Your task to perform on an android device: refresh tabs in the chrome app Image 0: 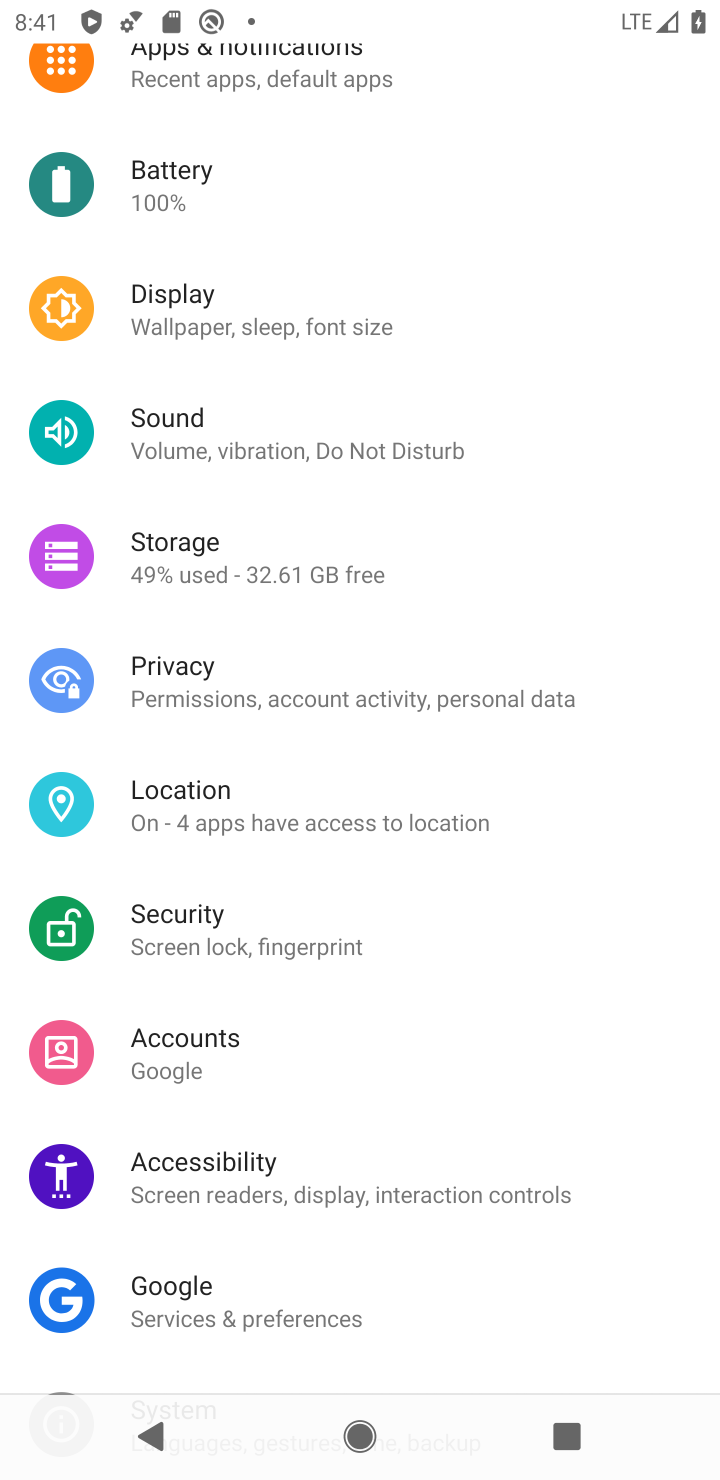
Step 0: press home button
Your task to perform on an android device: refresh tabs in the chrome app Image 1: 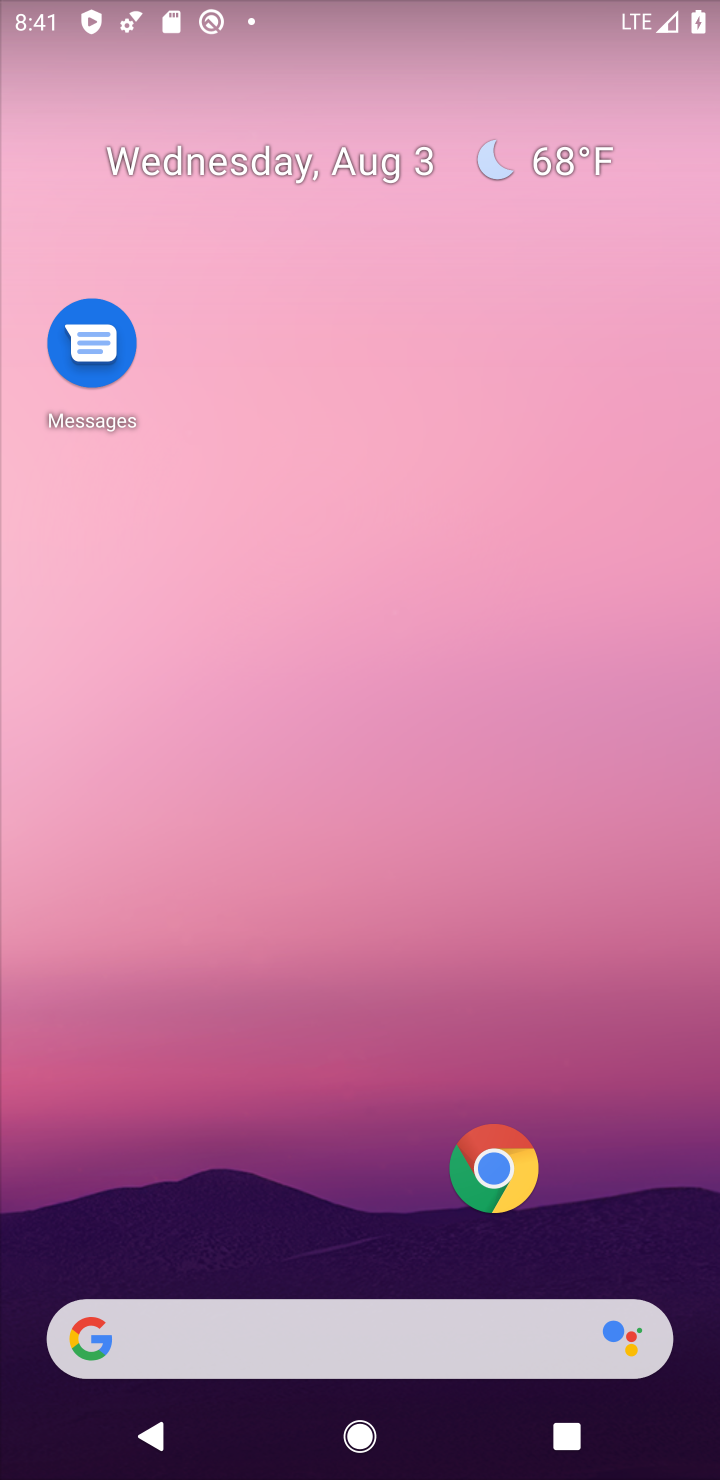
Step 1: drag from (347, 1229) to (341, 141)
Your task to perform on an android device: refresh tabs in the chrome app Image 2: 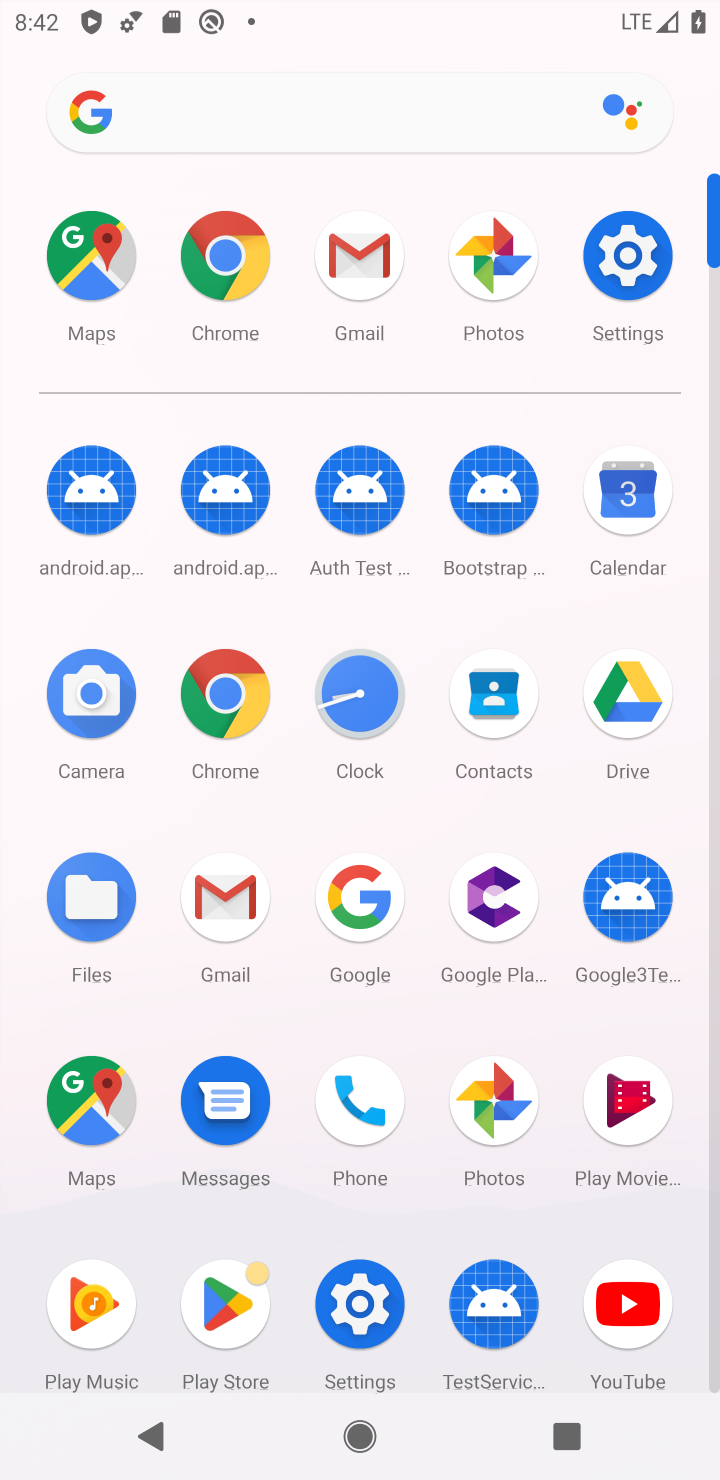
Step 2: click (235, 718)
Your task to perform on an android device: refresh tabs in the chrome app Image 3: 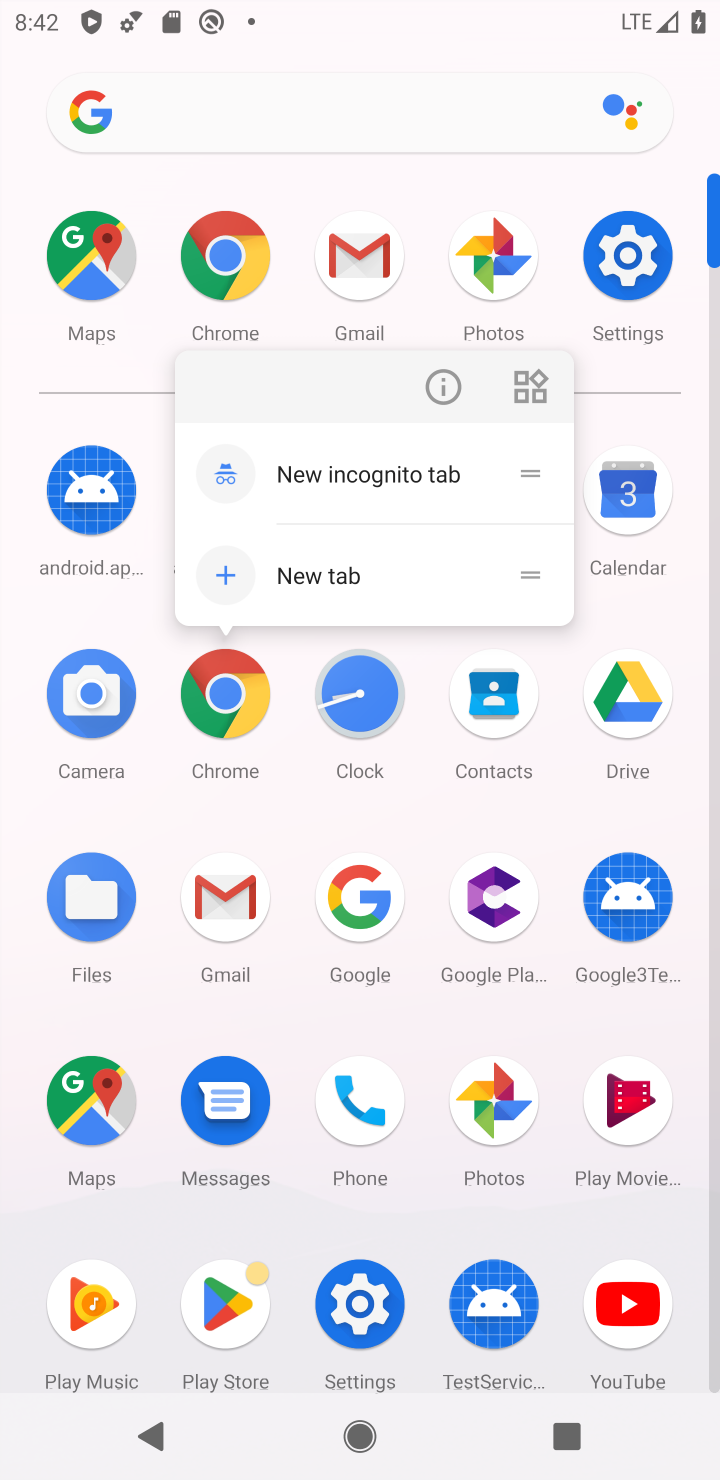
Step 3: click (241, 699)
Your task to perform on an android device: refresh tabs in the chrome app Image 4: 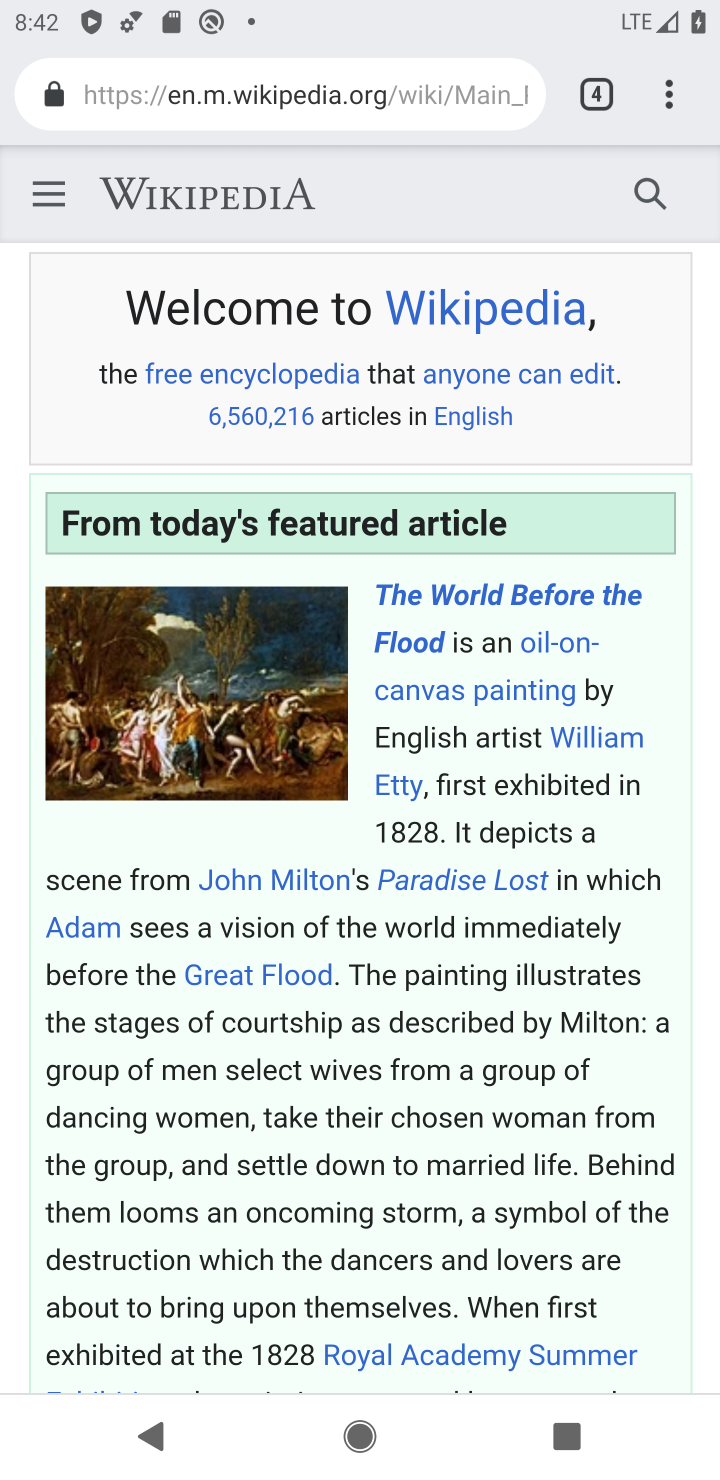
Step 4: click (657, 108)
Your task to perform on an android device: refresh tabs in the chrome app Image 5: 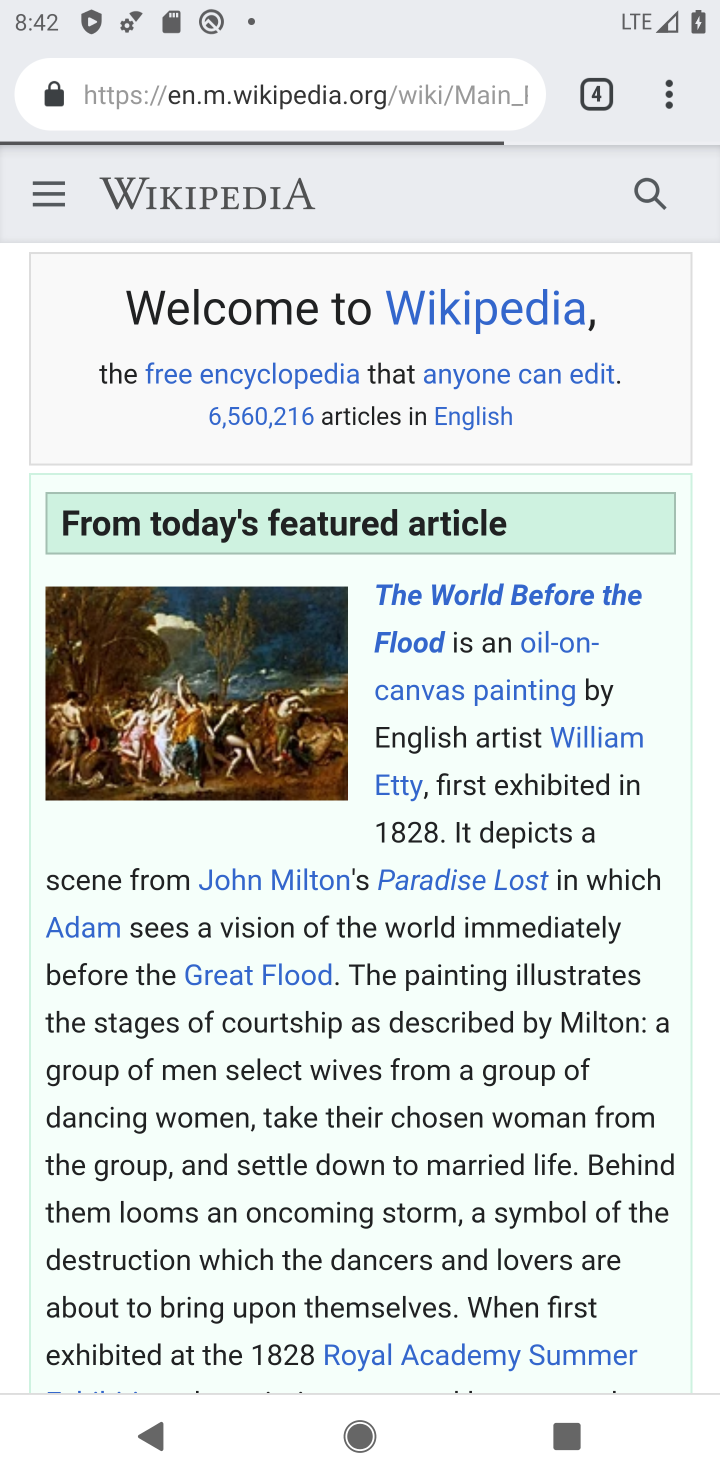
Step 5: click (657, 108)
Your task to perform on an android device: refresh tabs in the chrome app Image 6: 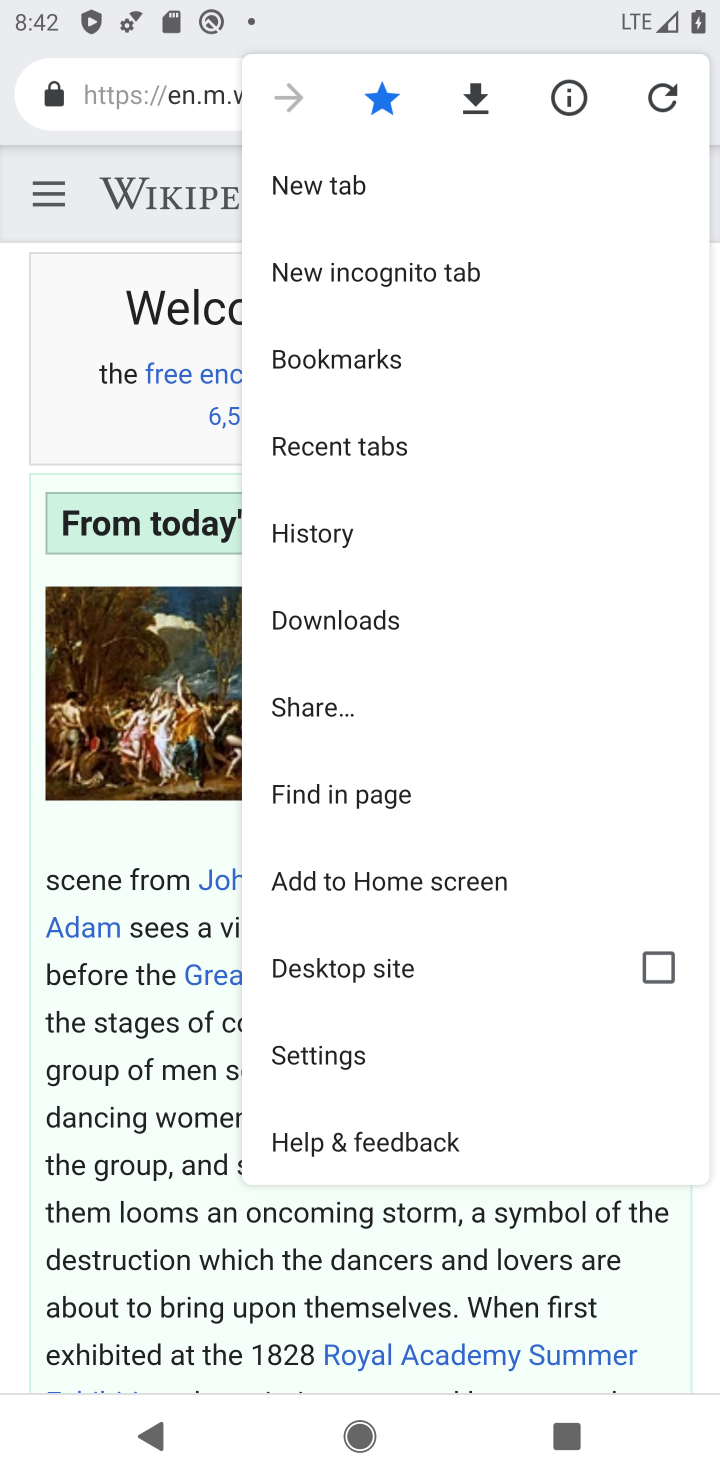
Step 6: click (657, 108)
Your task to perform on an android device: refresh tabs in the chrome app Image 7: 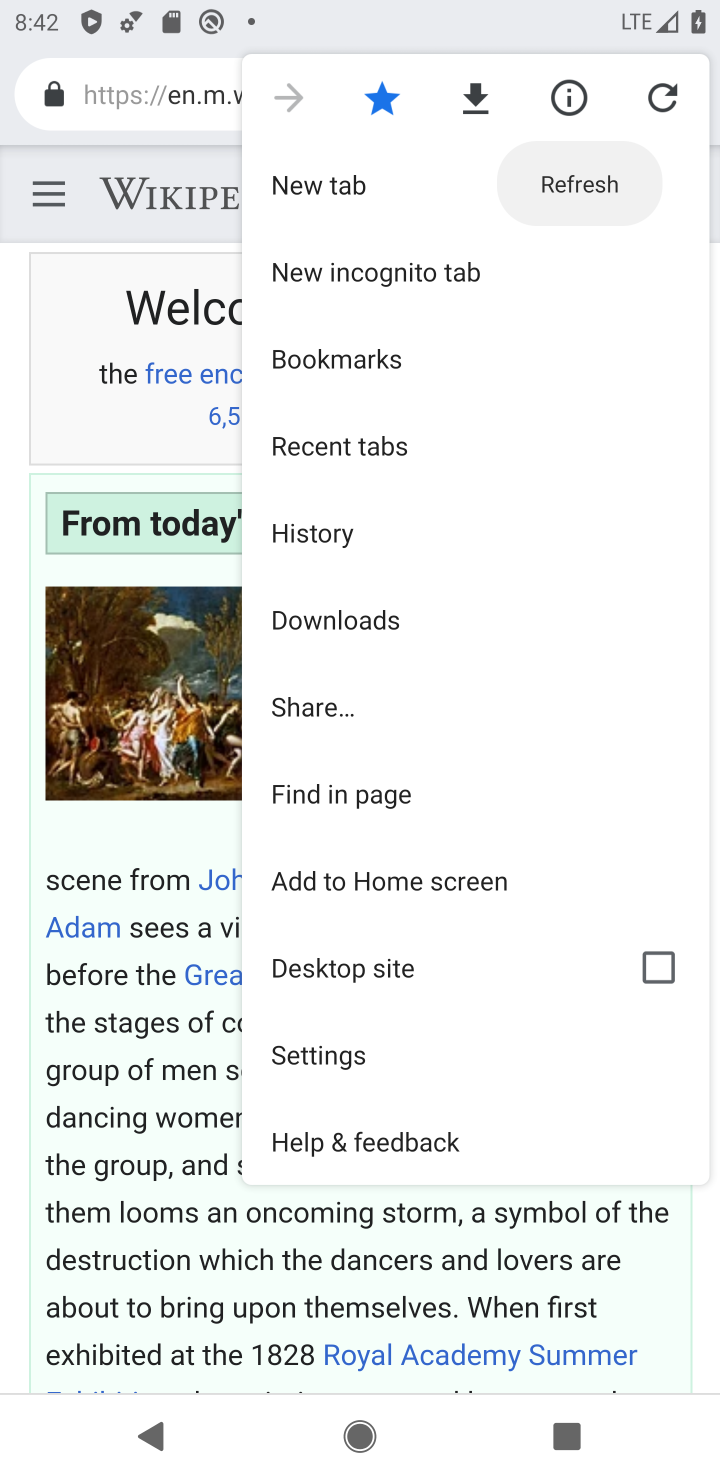
Step 7: task complete